Your task to perform on an android device: What's the news in Colombia? Image 0: 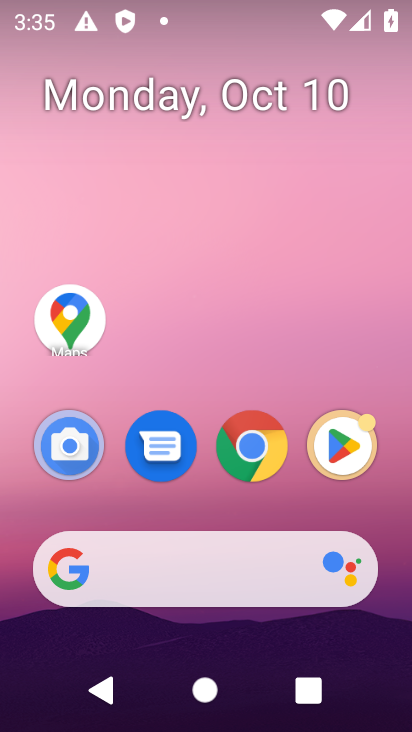
Step 0: click (206, 580)
Your task to perform on an android device: What's the news in Colombia? Image 1: 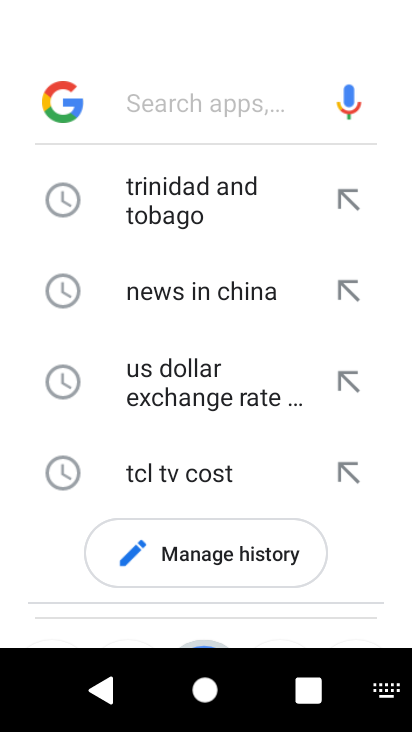
Step 1: type "Colombia"
Your task to perform on an android device: What's the news in Colombia? Image 2: 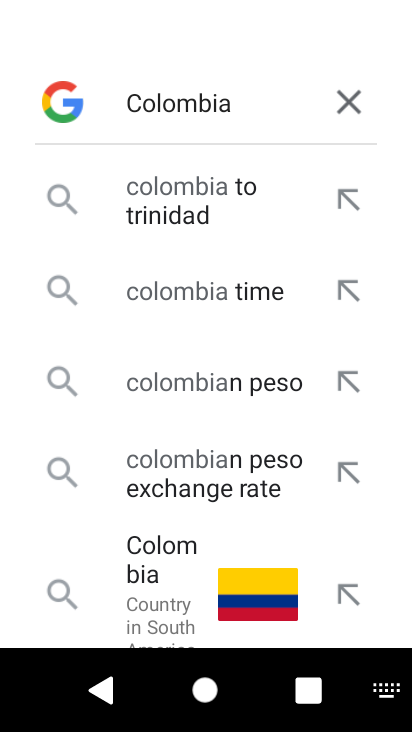
Step 2: type ""
Your task to perform on an android device: What's the news in Colombia? Image 3: 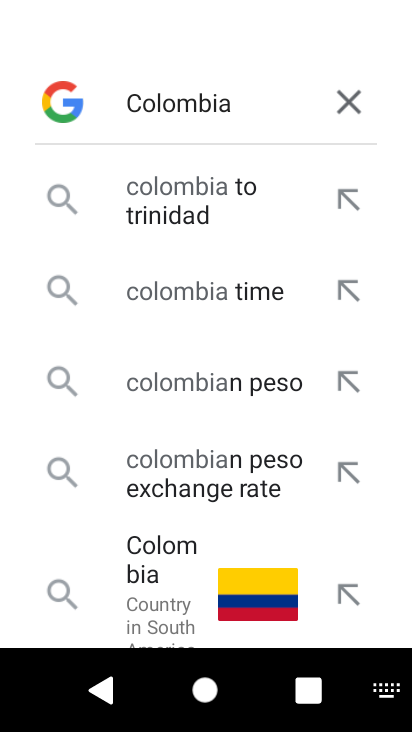
Step 3: type "news"
Your task to perform on an android device: What's the news in Colombia? Image 4: 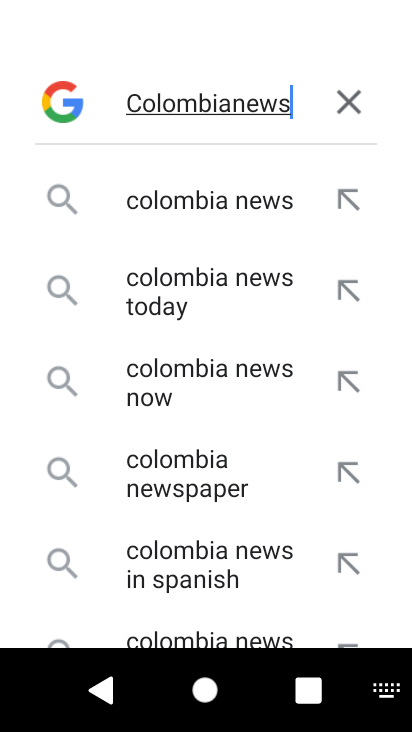
Step 4: type ""
Your task to perform on an android device: What's the news in Colombia? Image 5: 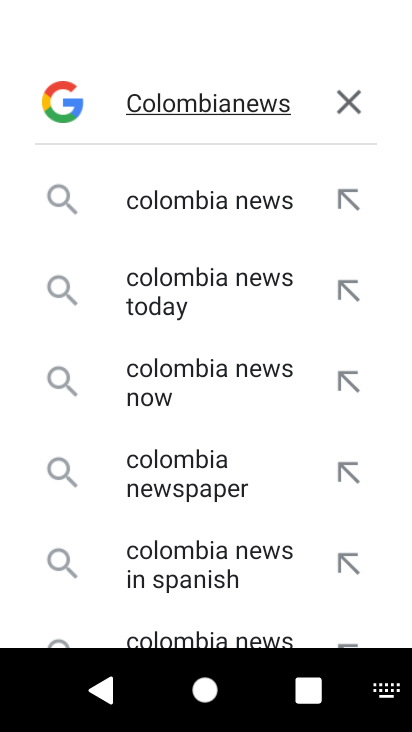
Step 5: click (198, 200)
Your task to perform on an android device: What's the news in Colombia? Image 6: 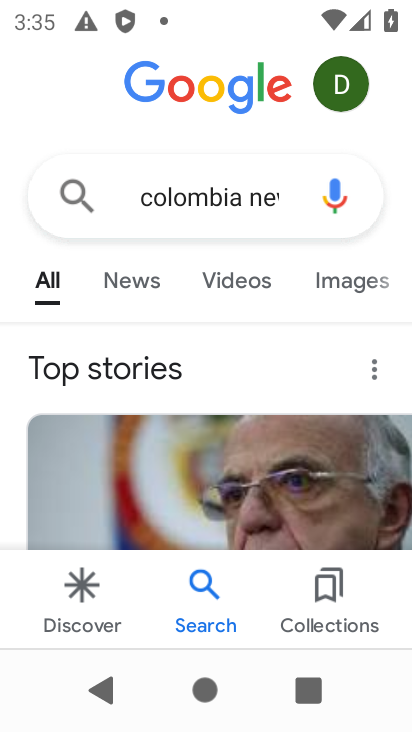
Step 6: click (148, 281)
Your task to perform on an android device: What's the news in Colombia? Image 7: 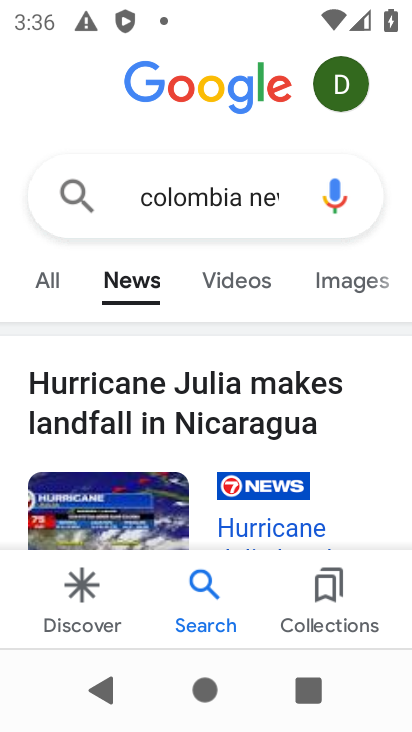
Step 7: task complete